Your task to perform on an android device: What is the recent news? Image 0: 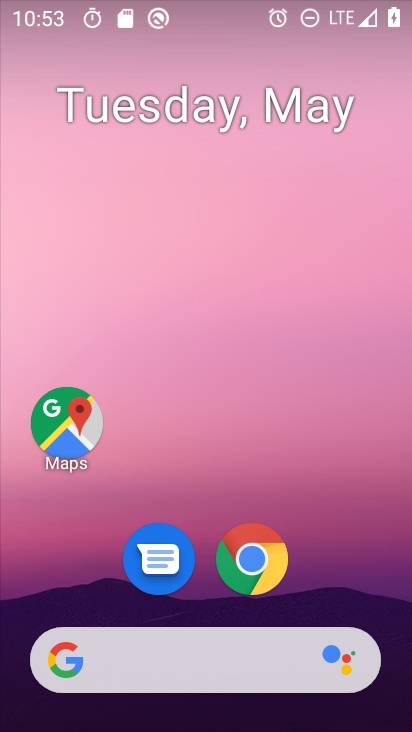
Step 0: drag from (389, 646) to (299, 23)
Your task to perform on an android device: What is the recent news? Image 1: 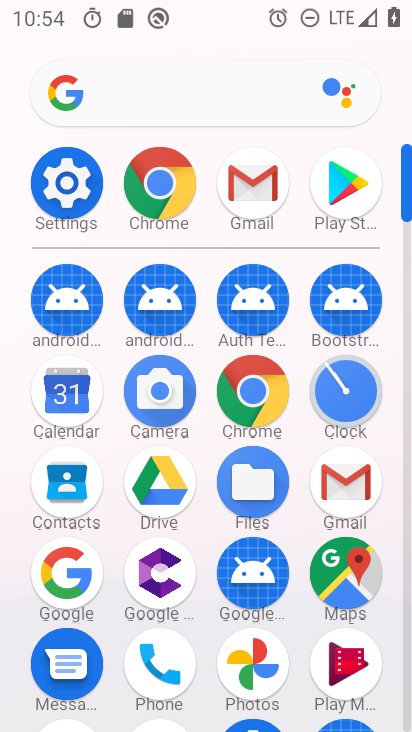
Step 1: click (56, 585)
Your task to perform on an android device: What is the recent news? Image 2: 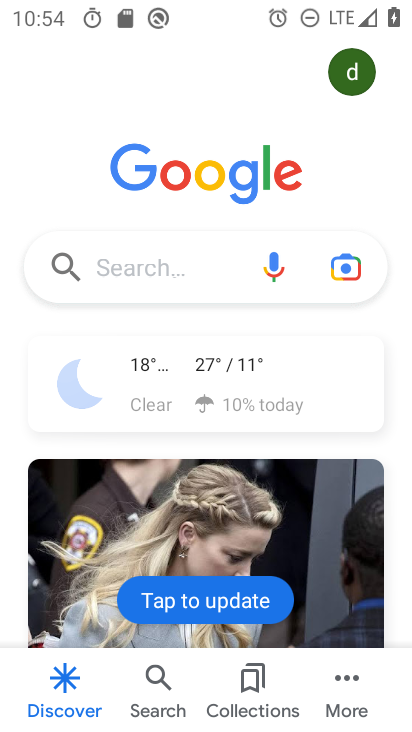
Step 2: click (157, 293)
Your task to perform on an android device: What is the recent news? Image 3: 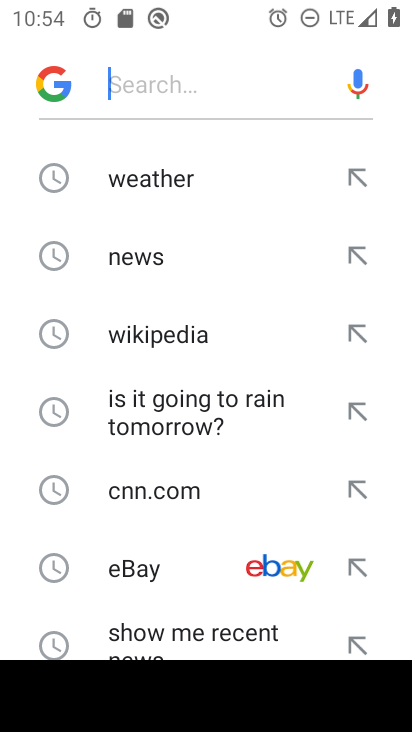
Step 3: drag from (143, 609) to (147, 227)
Your task to perform on an android device: What is the recent news? Image 4: 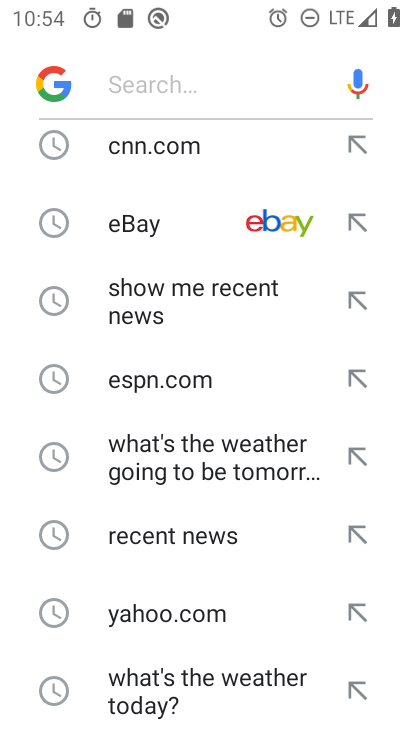
Step 4: click (193, 545)
Your task to perform on an android device: What is the recent news? Image 5: 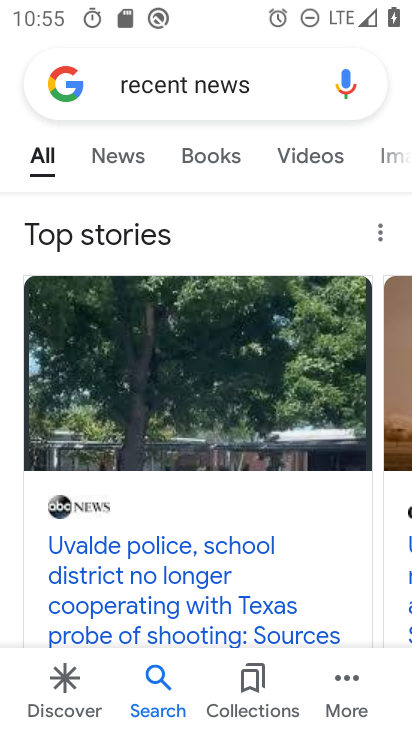
Step 5: task complete